Your task to perform on an android device: Open Google Image 0: 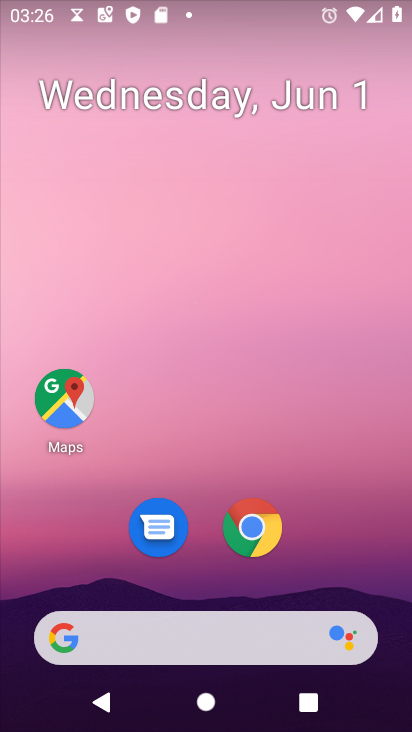
Step 0: drag from (343, 565) to (290, 112)
Your task to perform on an android device: Open Google Image 1: 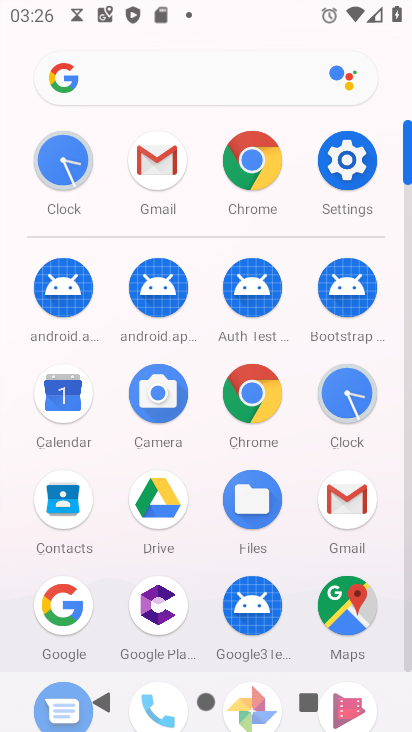
Step 1: click (56, 604)
Your task to perform on an android device: Open Google Image 2: 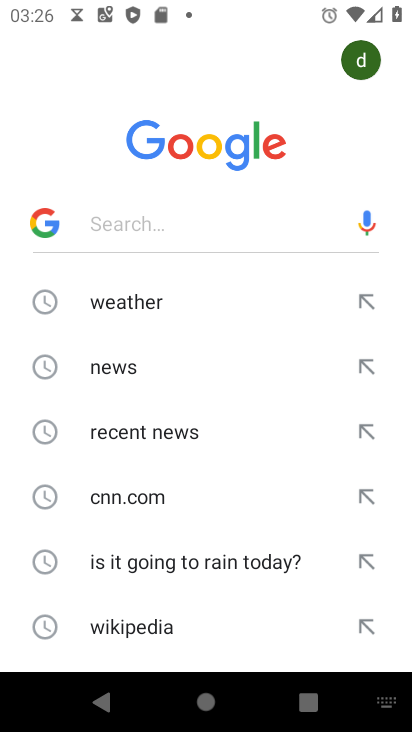
Step 2: task complete